Your task to perform on an android device: Is it going to rain today? Image 0: 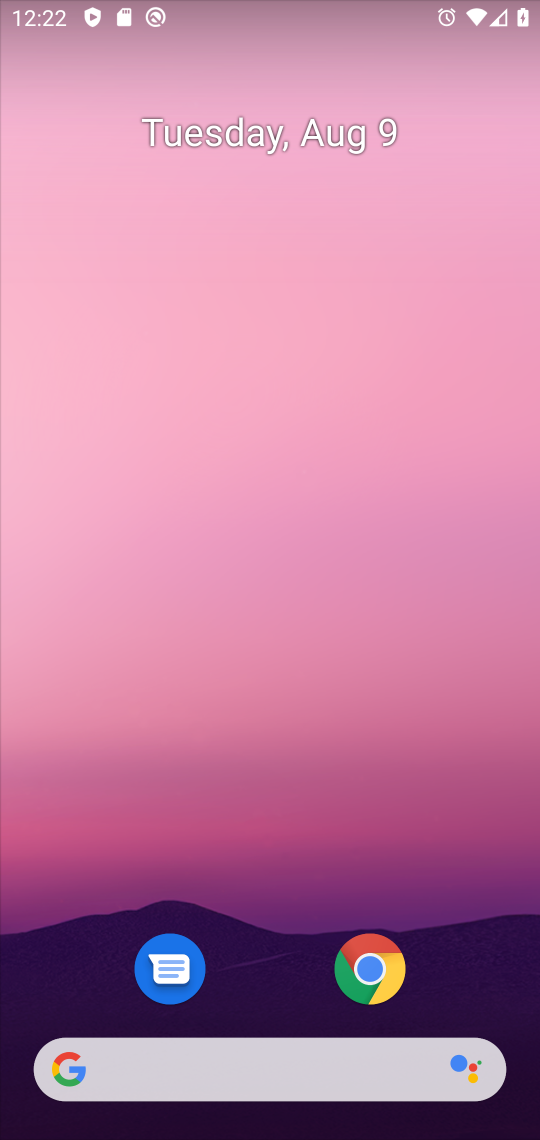
Step 0: click (373, 576)
Your task to perform on an android device: Is it going to rain today? Image 1: 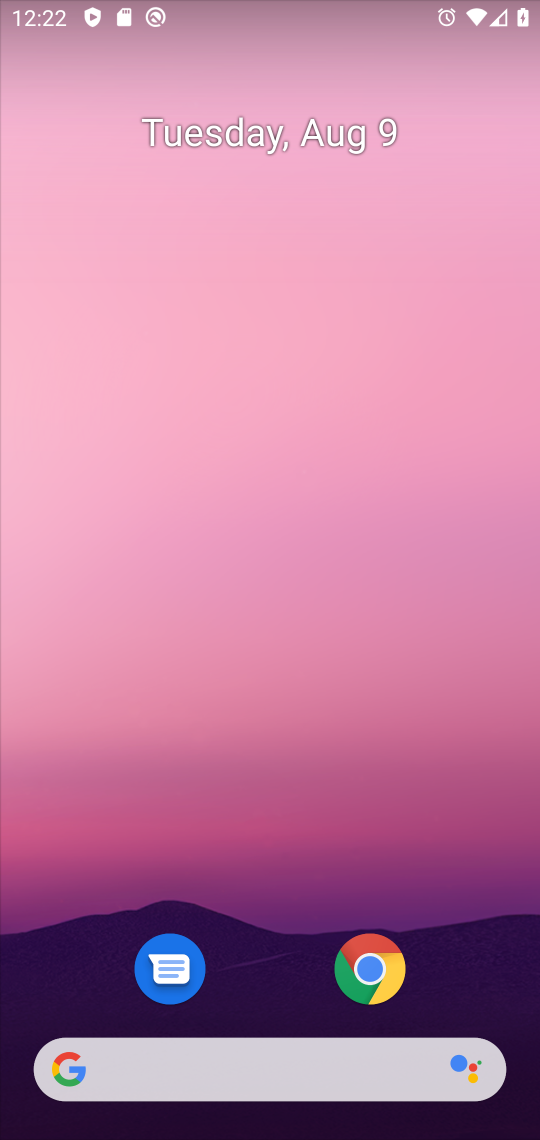
Step 1: drag from (322, 910) to (350, 628)
Your task to perform on an android device: Is it going to rain today? Image 2: 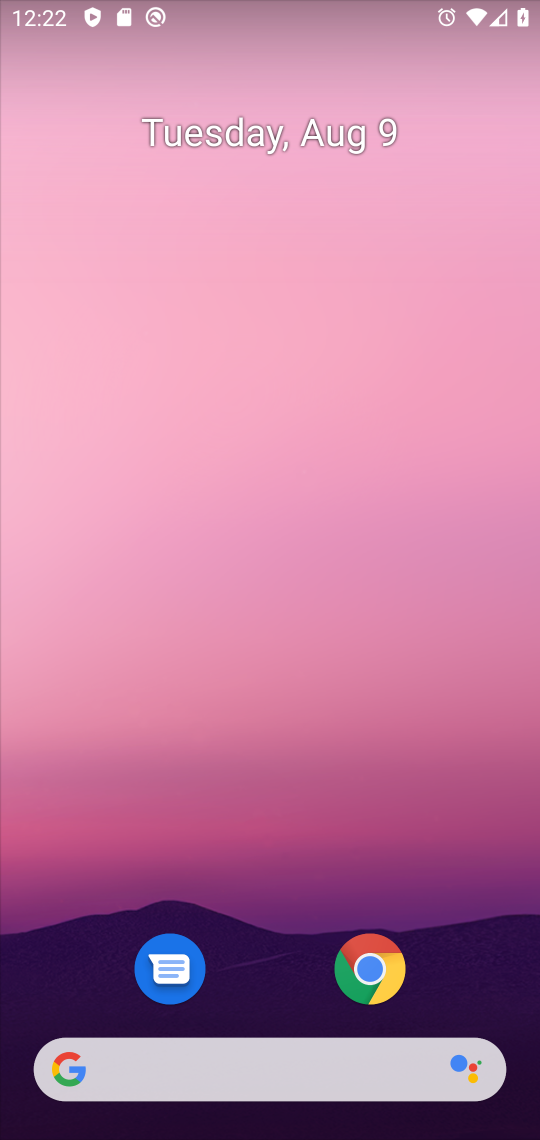
Step 2: drag from (284, 835) to (351, 405)
Your task to perform on an android device: Is it going to rain today? Image 3: 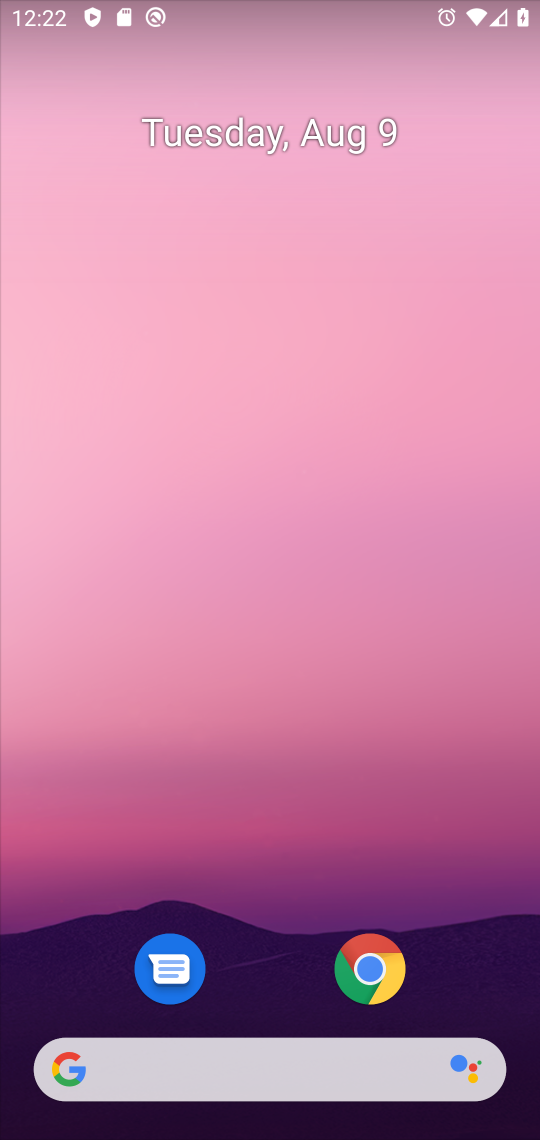
Step 3: drag from (270, 923) to (305, 476)
Your task to perform on an android device: Is it going to rain today? Image 4: 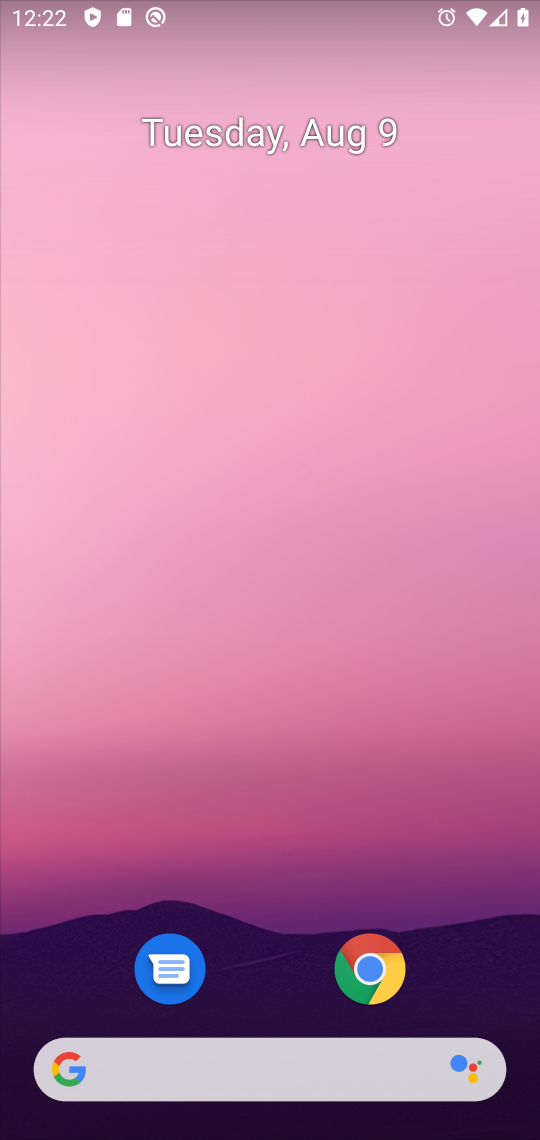
Step 4: drag from (271, 941) to (275, 625)
Your task to perform on an android device: Is it going to rain today? Image 5: 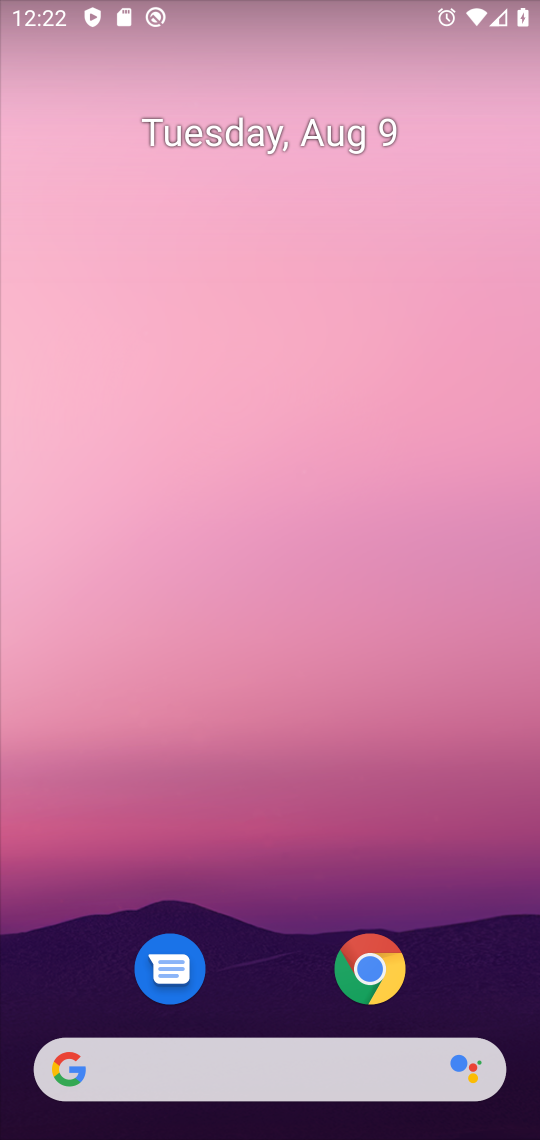
Step 5: drag from (326, 818) to (389, 487)
Your task to perform on an android device: Is it going to rain today? Image 6: 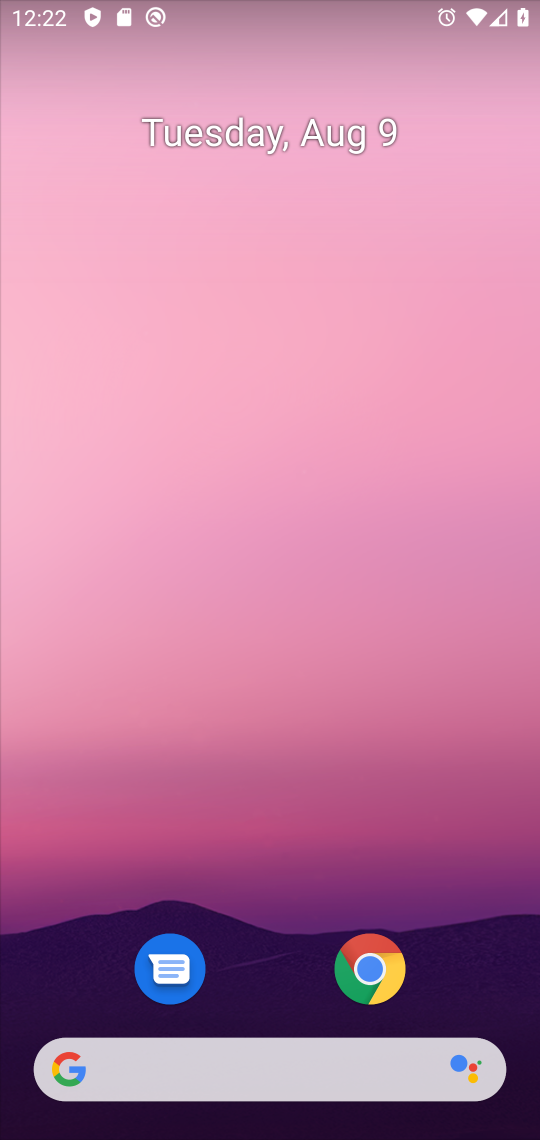
Step 6: drag from (244, 862) to (271, 547)
Your task to perform on an android device: Is it going to rain today? Image 7: 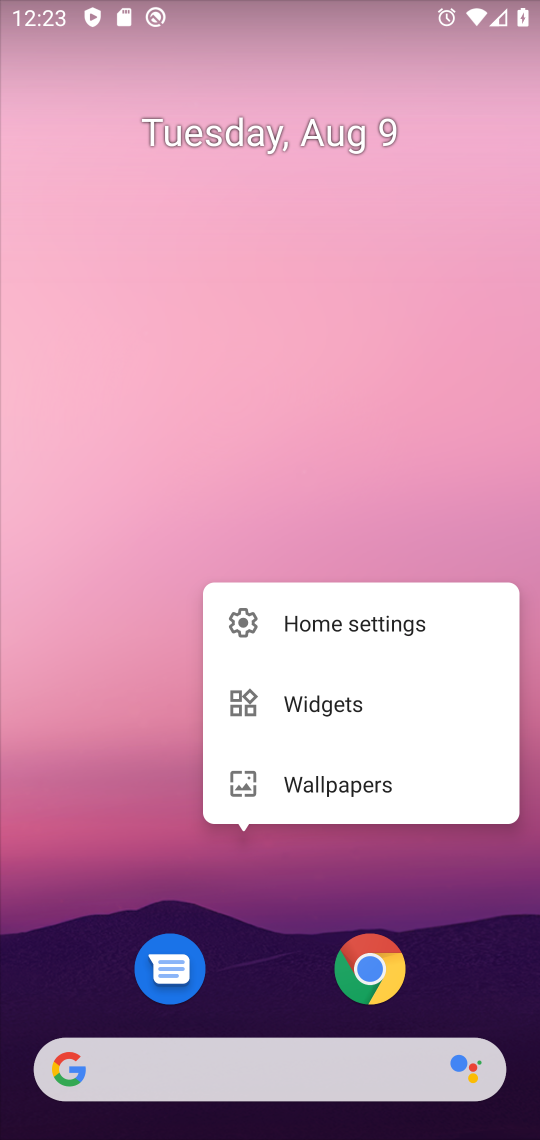
Step 7: drag from (266, 836) to (235, 229)
Your task to perform on an android device: Is it going to rain today? Image 8: 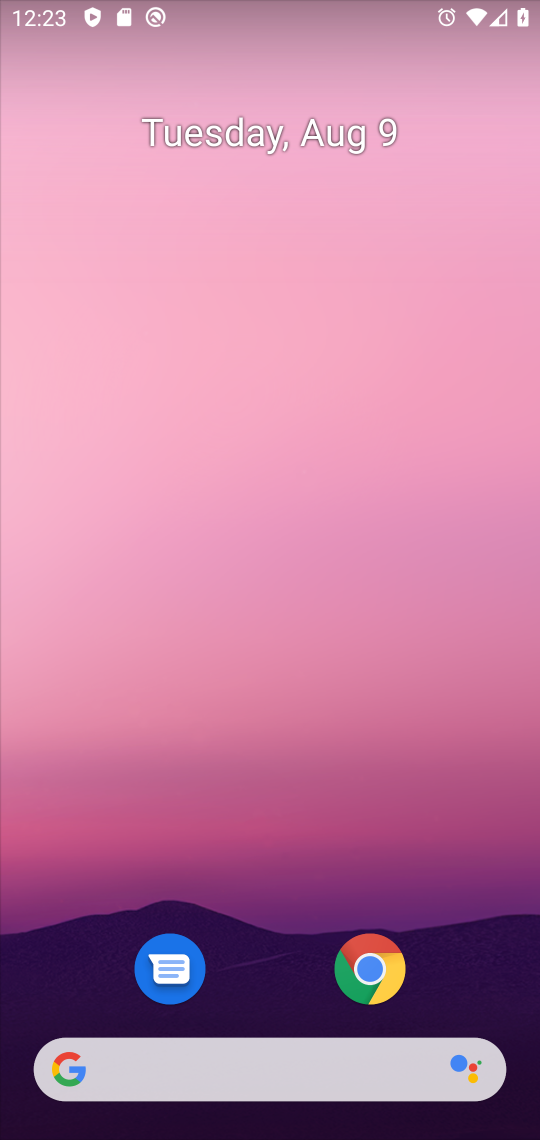
Step 8: drag from (455, 368) to (22, 572)
Your task to perform on an android device: Is it going to rain today? Image 9: 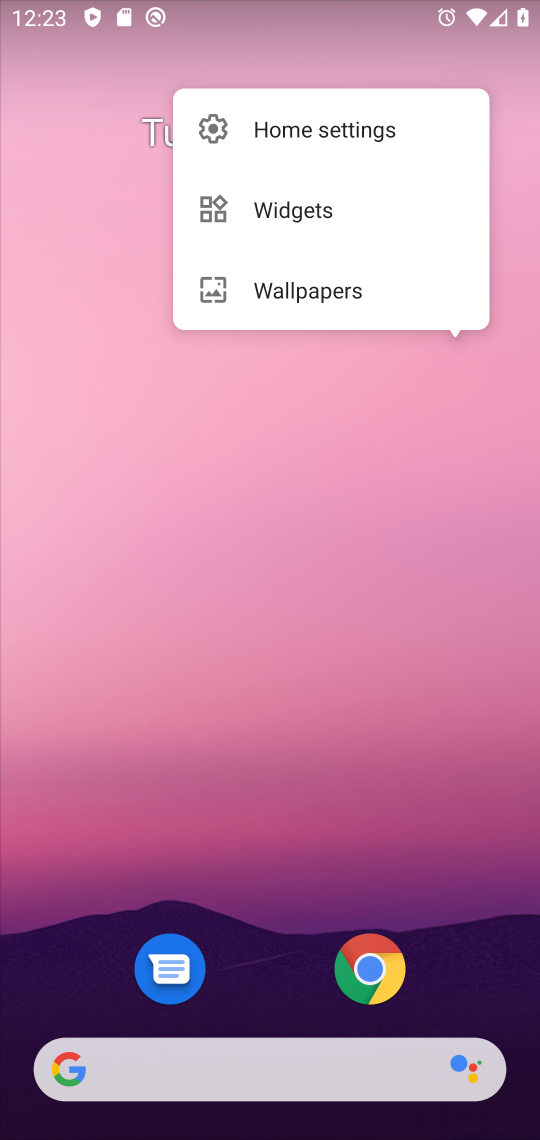
Step 9: drag from (267, 1001) to (289, 421)
Your task to perform on an android device: Is it going to rain today? Image 10: 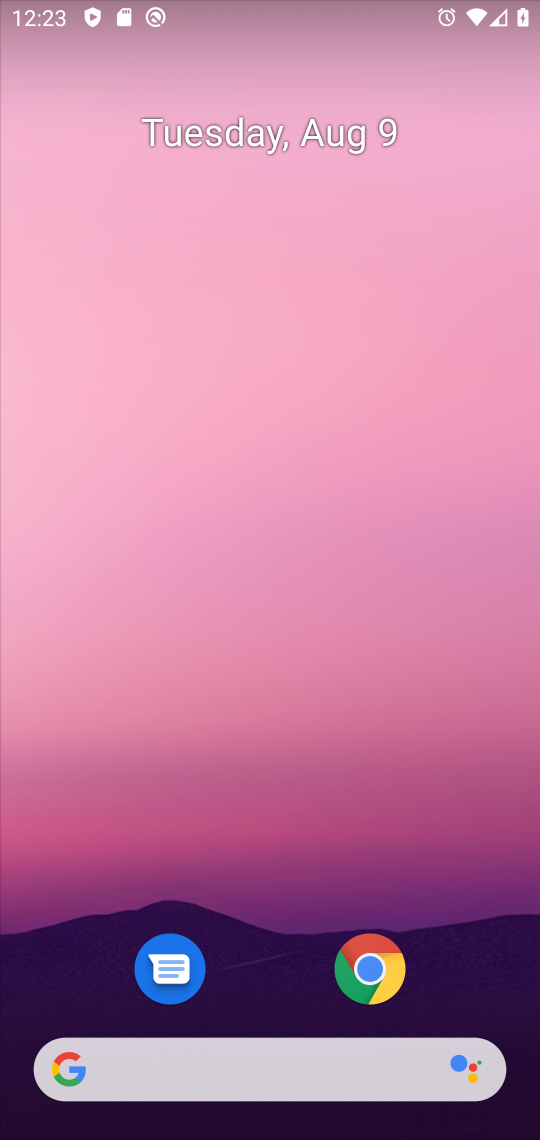
Step 10: drag from (285, 743) to (287, 543)
Your task to perform on an android device: Is it going to rain today? Image 11: 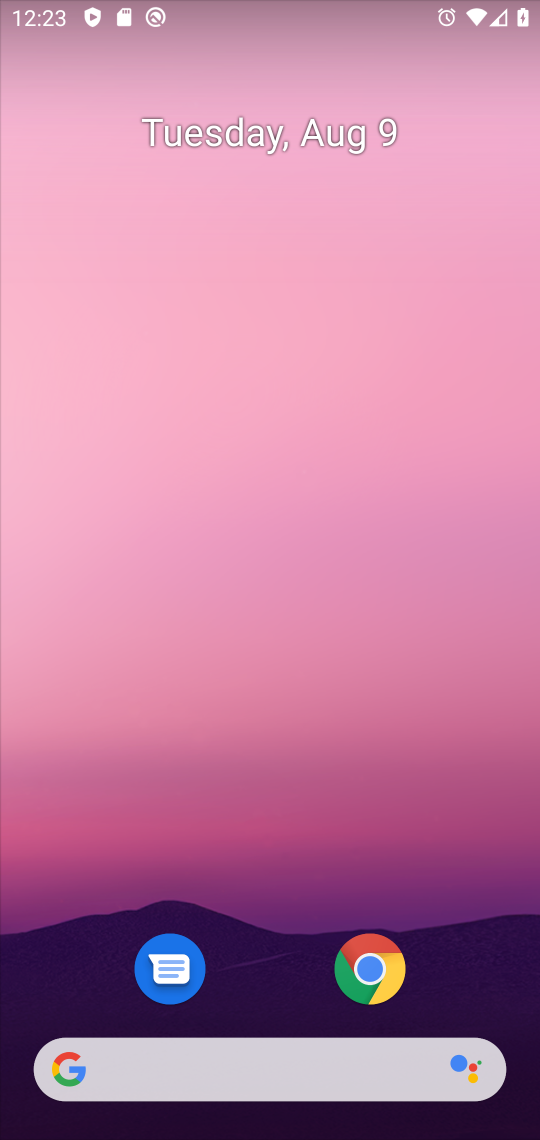
Step 11: drag from (278, 983) to (313, 375)
Your task to perform on an android device: Is it going to rain today? Image 12: 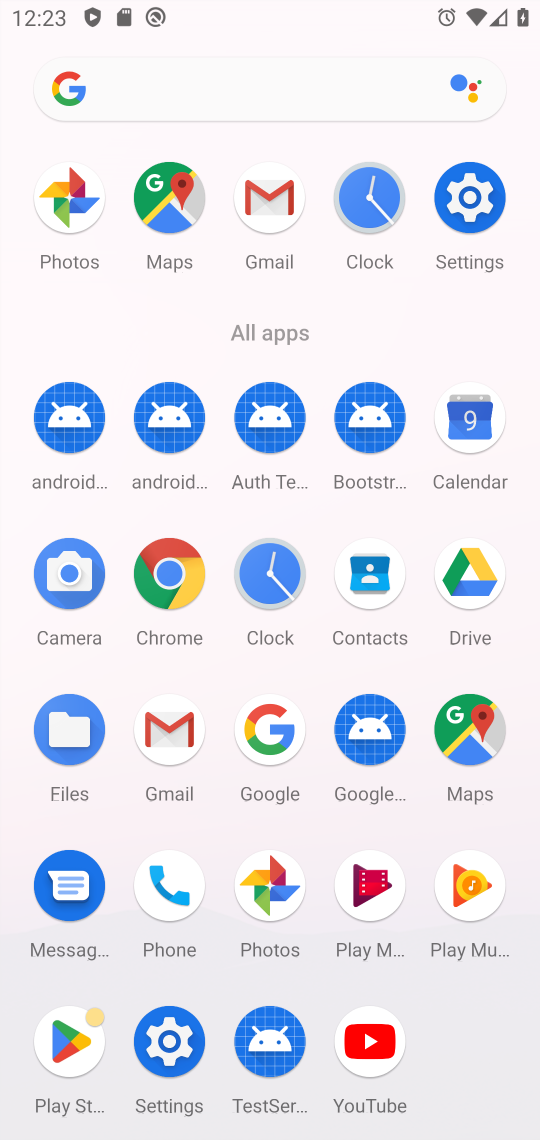
Step 12: drag from (256, 804) to (293, 352)
Your task to perform on an android device: Is it going to rain today? Image 13: 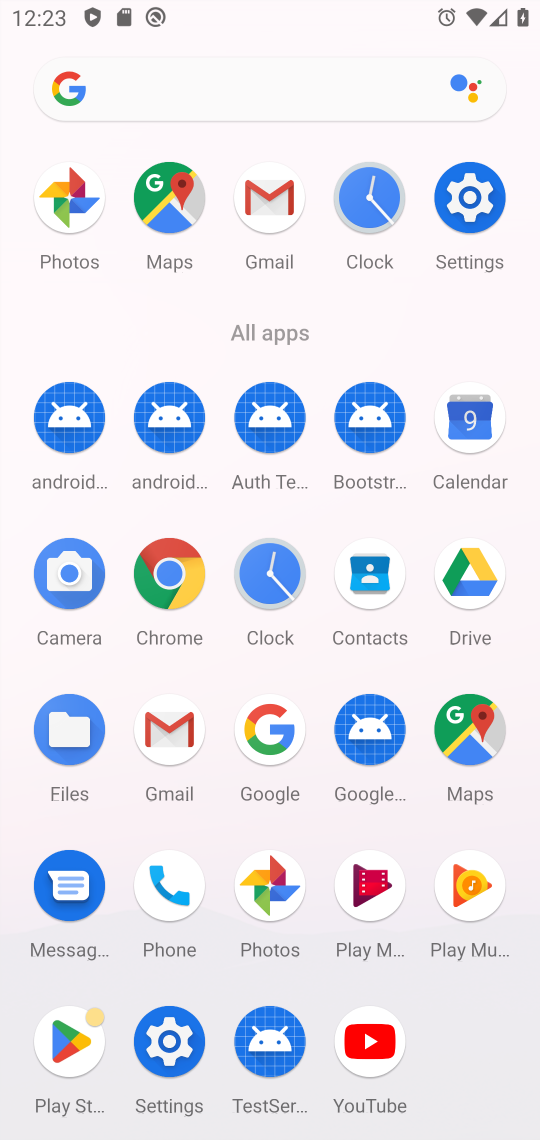
Step 13: click (175, 71)
Your task to perform on an android device: Is it going to rain today? Image 14: 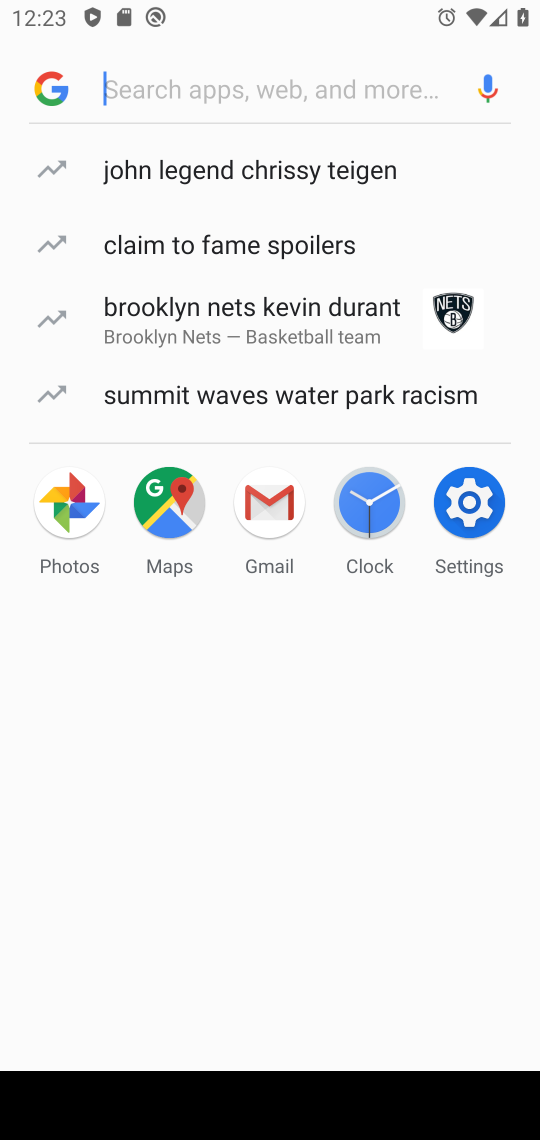
Step 14: type "Is it going to rain today?"
Your task to perform on an android device: Is it going to rain today? Image 15: 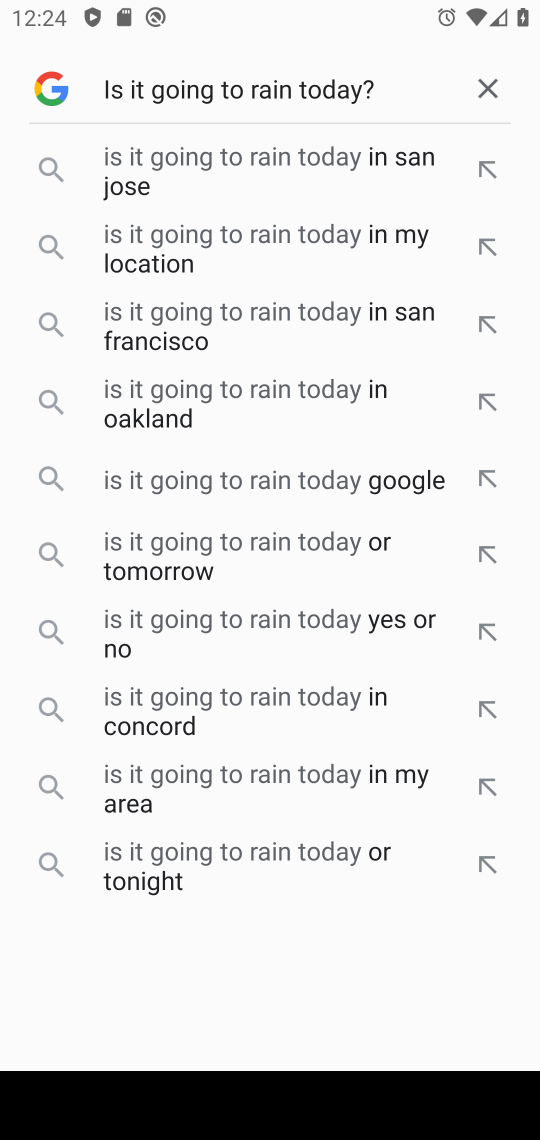
Step 15: click (156, 169)
Your task to perform on an android device: Is it going to rain today? Image 16: 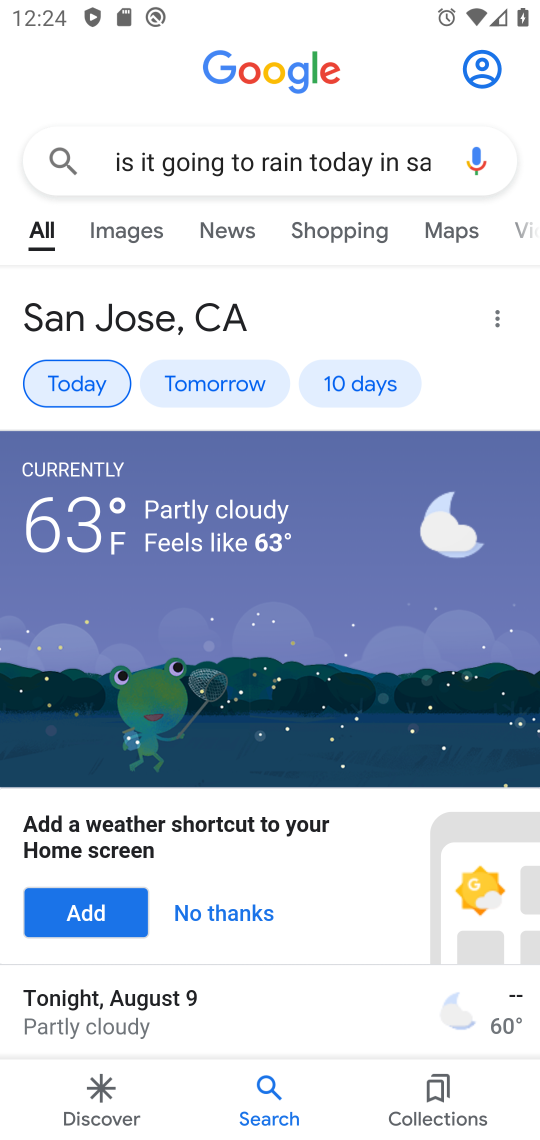
Step 16: task complete